Your task to perform on an android device: Turn on the flashlight Image 0: 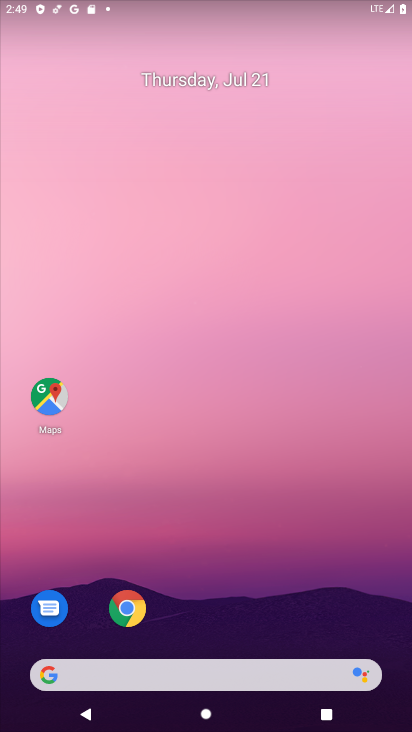
Step 0: drag from (209, 651) to (229, 101)
Your task to perform on an android device: Turn on the flashlight Image 1: 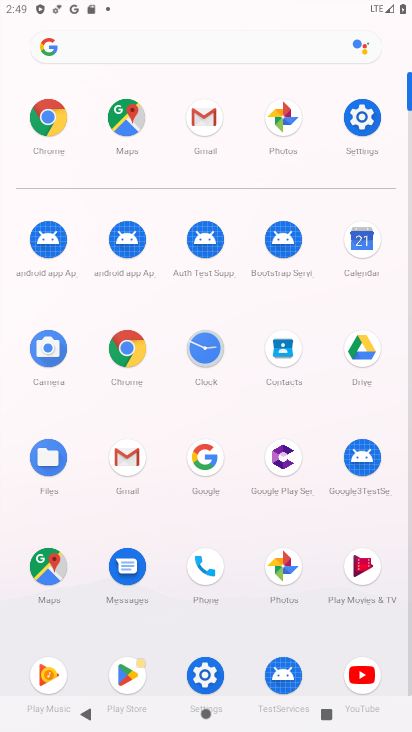
Step 1: click (207, 663)
Your task to perform on an android device: Turn on the flashlight Image 2: 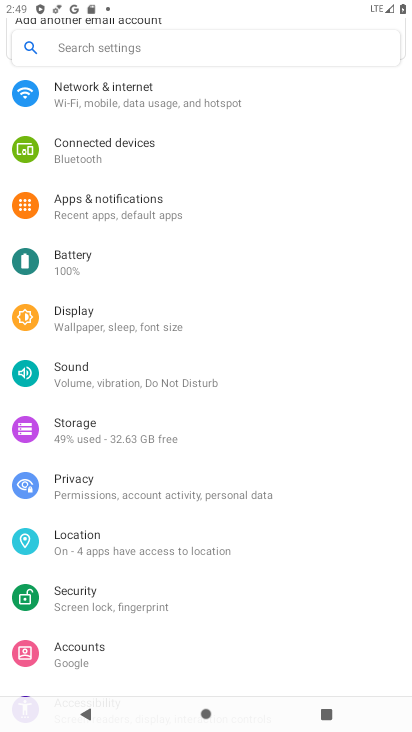
Step 2: task complete